Your task to perform on an android device: check storage Image 0: 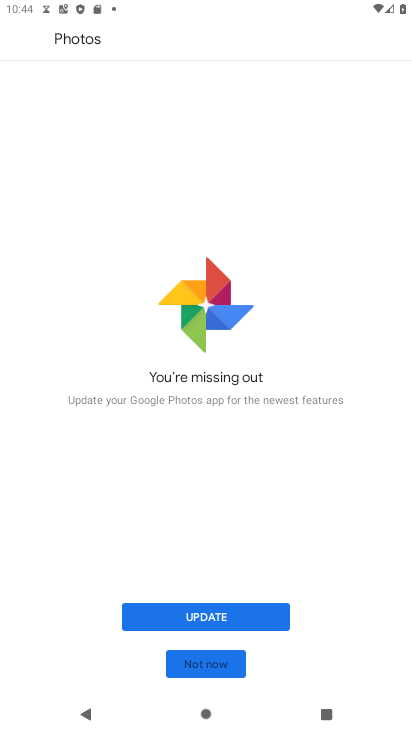
Step 0: press home button
Your task to perform on an android device: check storage Image 1: 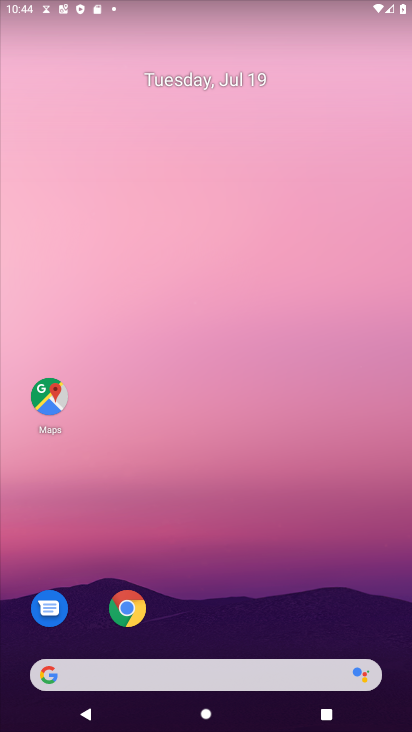
Step 1: drag from (326, 599) to (333, 27)
Your task to perform on an android device: check storage Image 2: 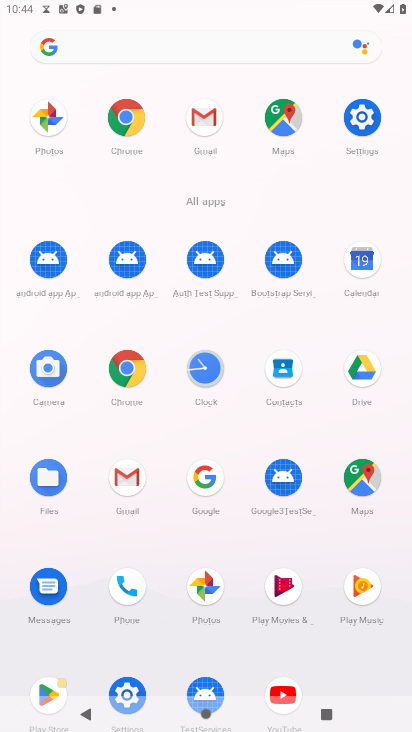
Step 2: click (361, 124)
Your task to perform on an android device: check storage Image 3: 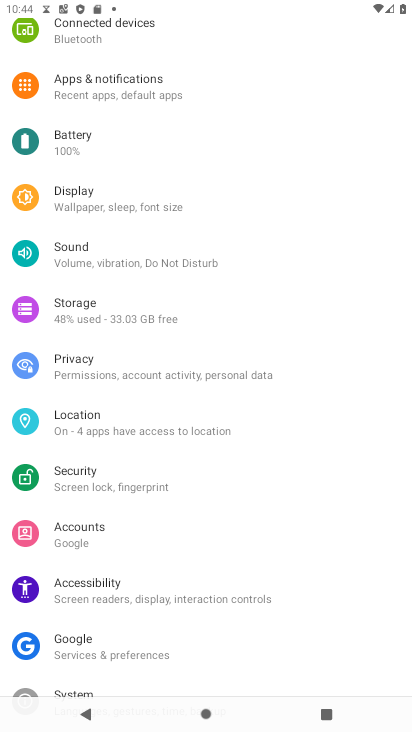
Step 3: click (104, 314)
Your task to perform on an android device: check storage Image 4: 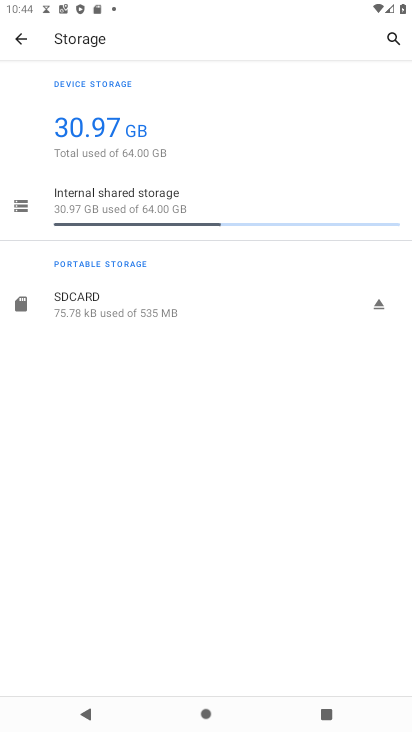
Step 4: task complete